Your task to perform on an android device: Open Wikipedia Image 0: 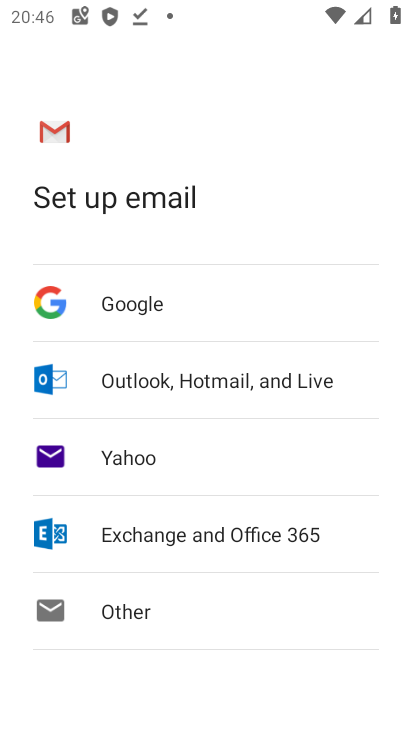
Step 0: press back button
Your task to perform on an android device: Open Wikipedia Image 1: 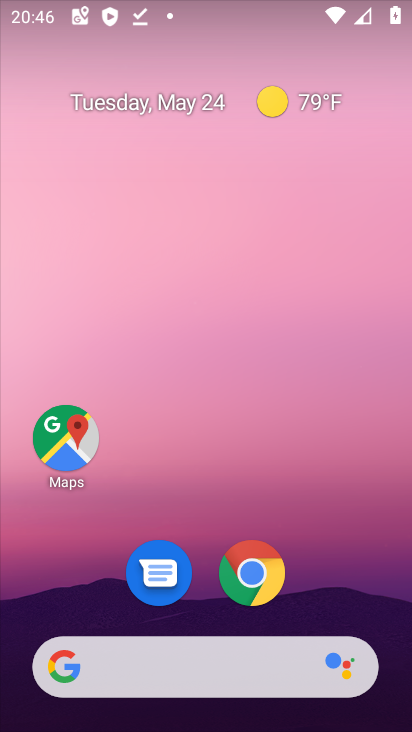
Step 1: drag from (346, 703) to (221, 105)
Your task to perform on an android device: Open Wikipedia Image 2: 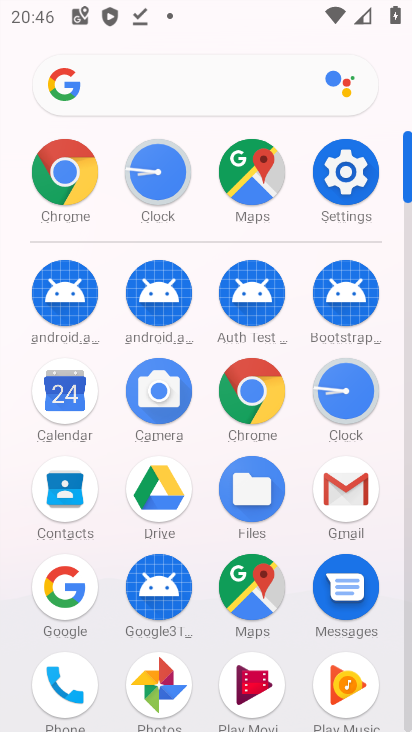
Step 2: click (68, 171)
Your task to perform on an android device: Open Wikipedia Image 3: 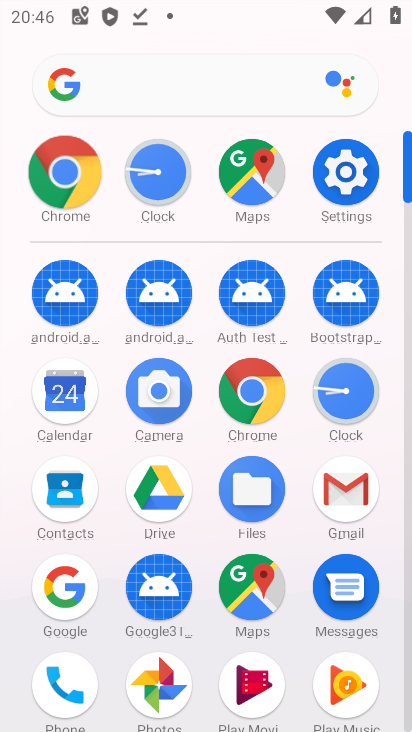
Step 3: click (68, 171)
Your task to perform on an android device: Open Wikipedia Image 4: 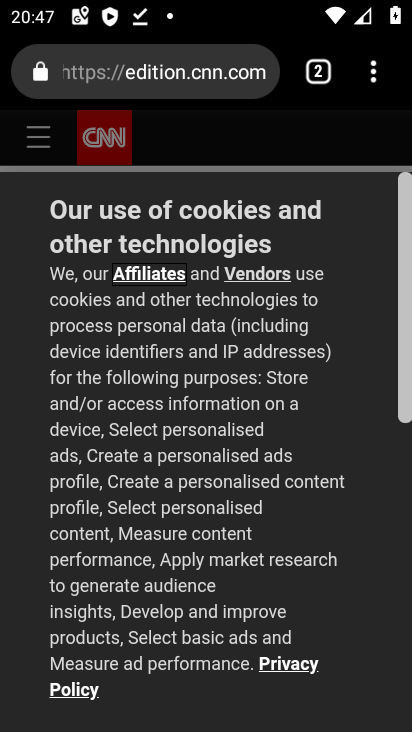
Step 4: click (379, 74)
Your task to perform on an android device: Open Wikipedia Image 5: 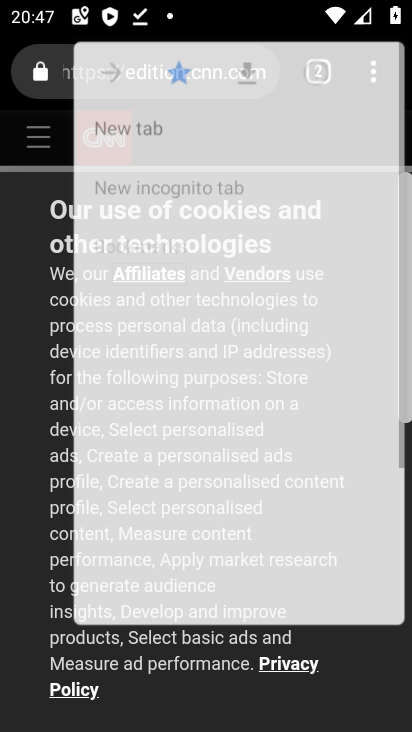
Step 5: drag from (369, 80) to (108, 140)
Your task to perform on an android device: Open Wikipedia Image 6: 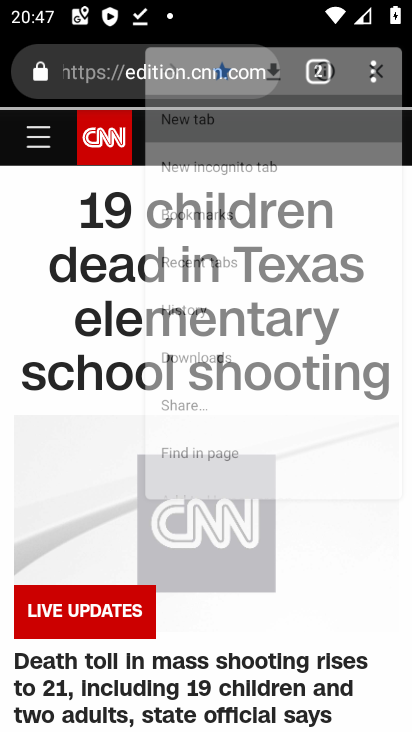
Step 6: click (108, 140)
Your task to perform on an android device: Open Wikipedia Image 7: 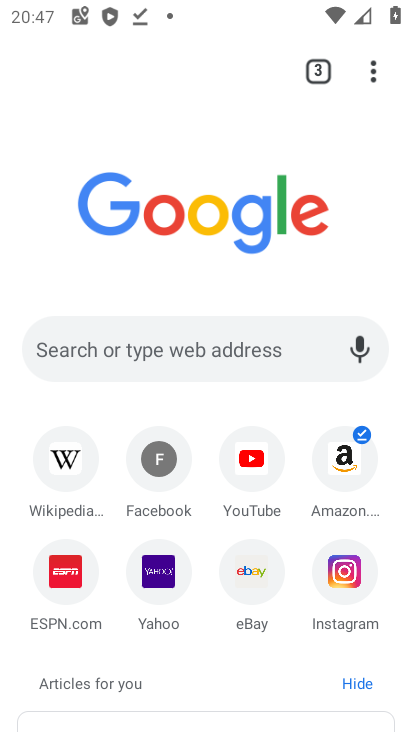
Step 7: click (55, 458)
Your task to perform on an android device: Open Wikipedia Image 8: 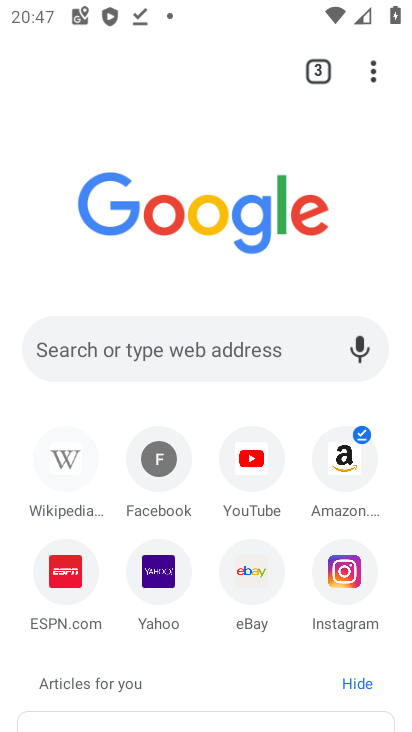
Step 8: click (57, 460)
Your task to perform on an android device: Open Wikipedia Image 9: 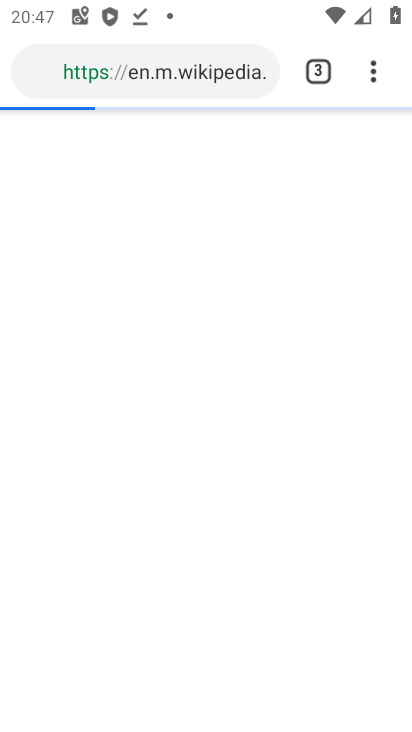
Step 9: click (60, 461)
Your task to perform on an android device: Open Wikipedia Image 10: 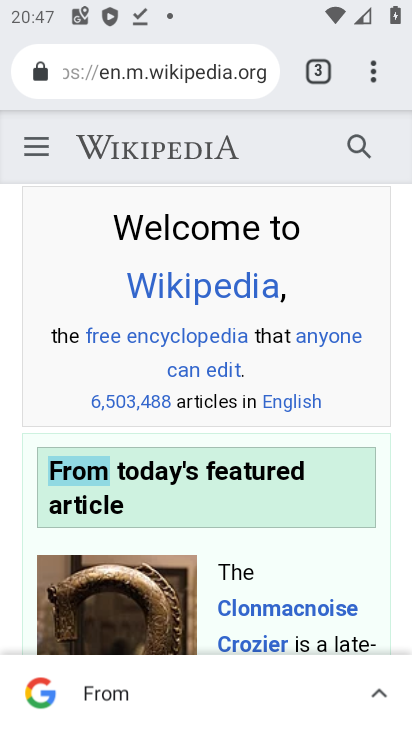
Step 10: task complete